Your task to perform on an android device: Find coffee shops on Maps Image 0: 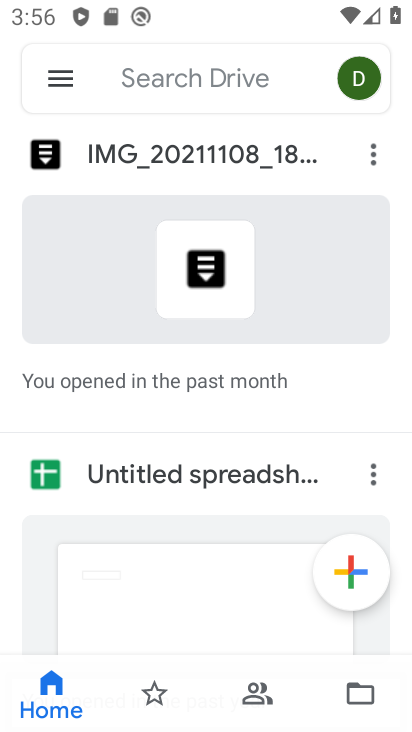
Step 0: press home button
Your task to perform on an android device: Find coffee shops on Maps Image 1: 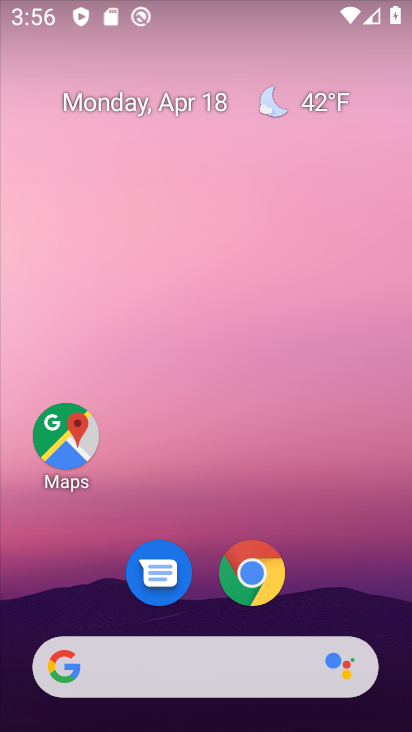
Step 1: click (59, 433)
Your task to perform on an android device: Find coffee shops on Maps Image 2: 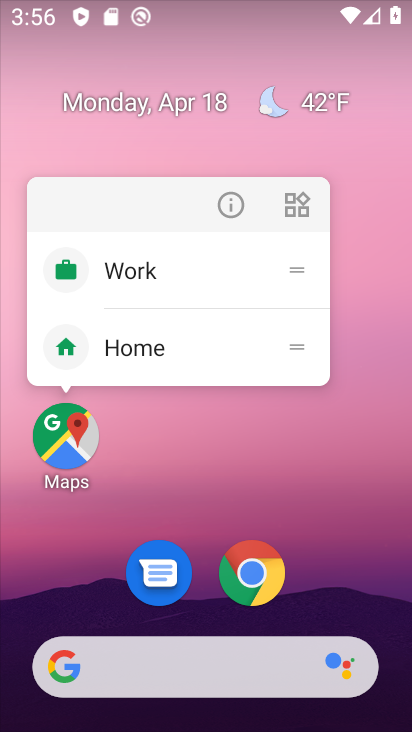
Step 2: click (64, 441)
Your task to perform on an android device: Find coffee shops on Maps Image 3: 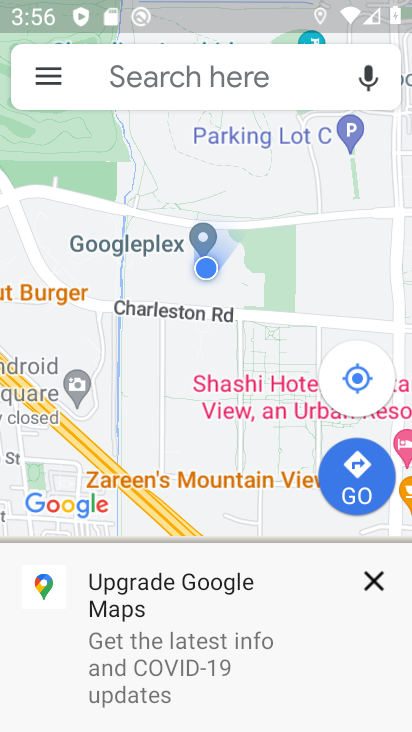
Step 3: click (225, 77)
Your task to perform on an android device: Find coffee shops on Maps Image 4: 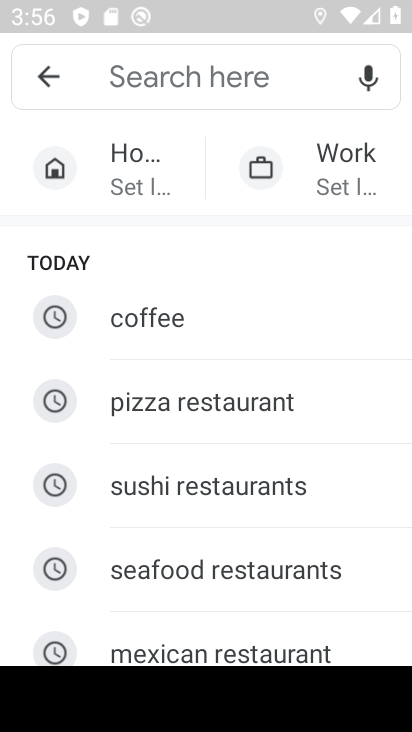
Step 4: click (166, 320)
Your task to perform on an android device: Find coffee shops on Maps Image 5: 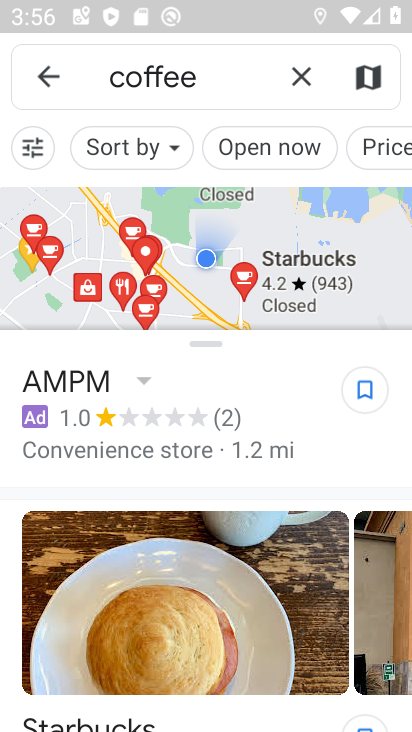
Step 5: task complete